Your task to perform on an android device: Open Wikipedia Image 0: 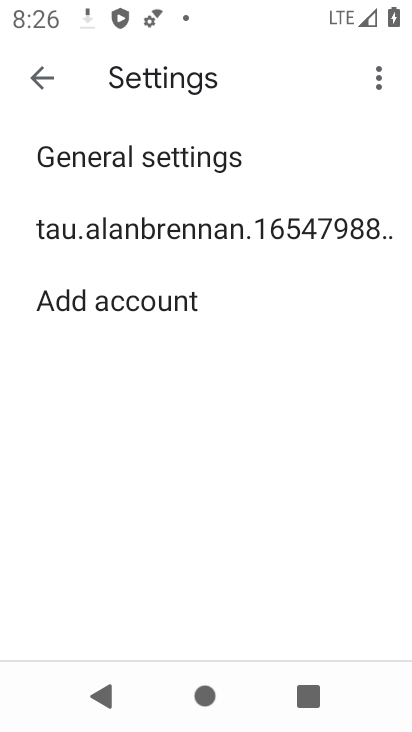
Step 0: press back button
Your task to perform on an android device: Open Wikipedia Image 1: 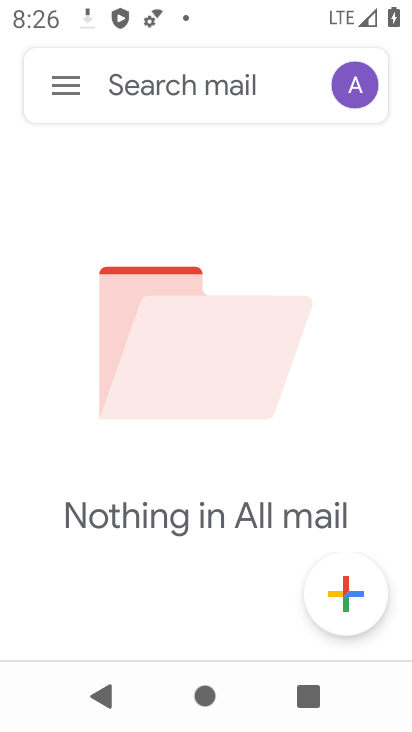
Step 1: press back button
Your task to perform on an android device: Open Wikipedia Image 2: 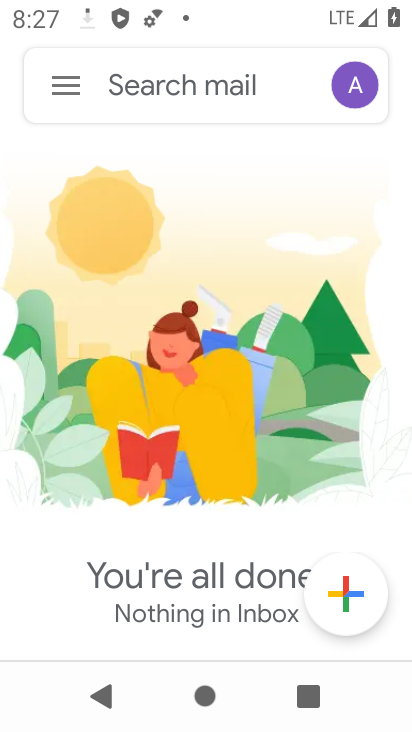
Step 2: press back button
Your task to perform on an android device: Open Wikipedia Image 3: 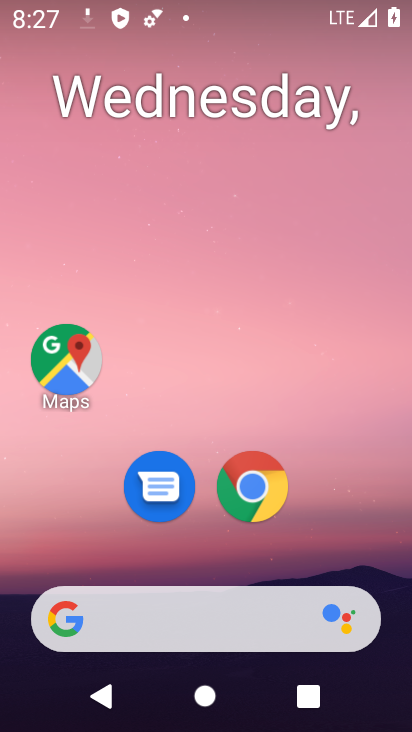
Step 3: click (253, 485)
Your task to perform on an android device: Open Wikipedia Image 4: 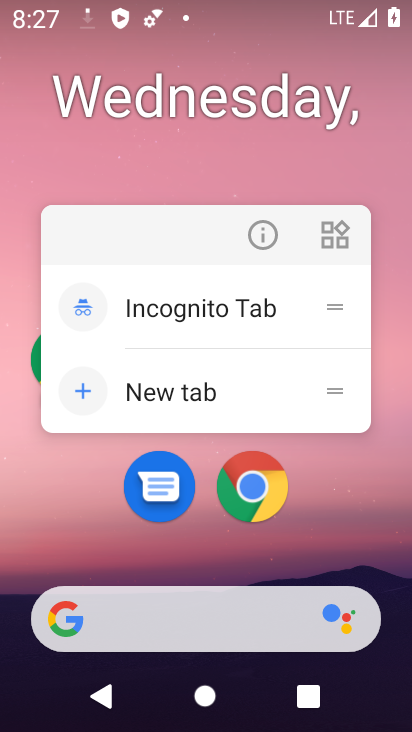
Step 4: click (244, 486)
Your task to perform on an android device: Open Wikipedia Image 5: 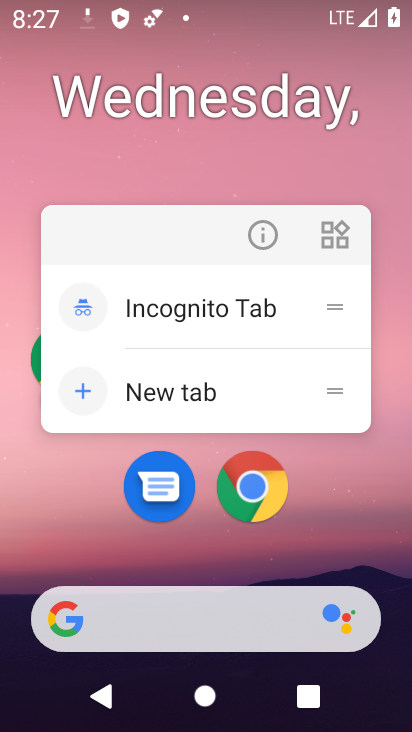
Step 5: click (264, 490)
Your task to perform on an android device: Open Wikipedia Image 6: 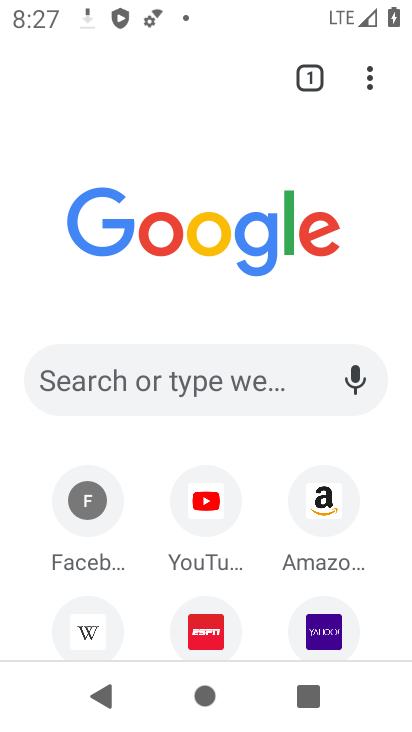
Step 6: click (102, 633)
Your task to perform on an android device: Open Wikipedia Image 7: 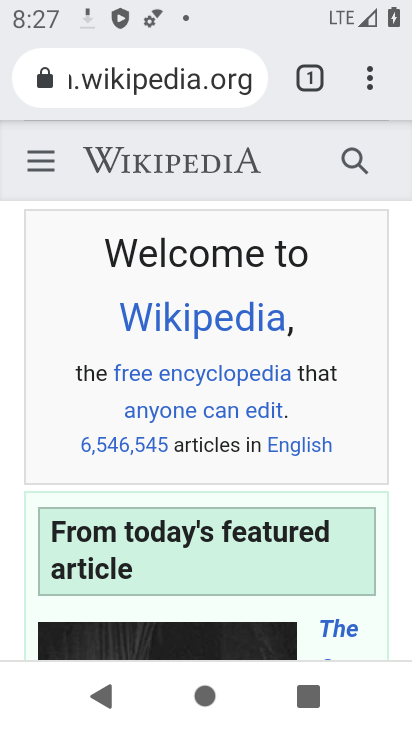
Step 7: task complete